Your task to perform on an android device: Turn on the flashlight Image 0: 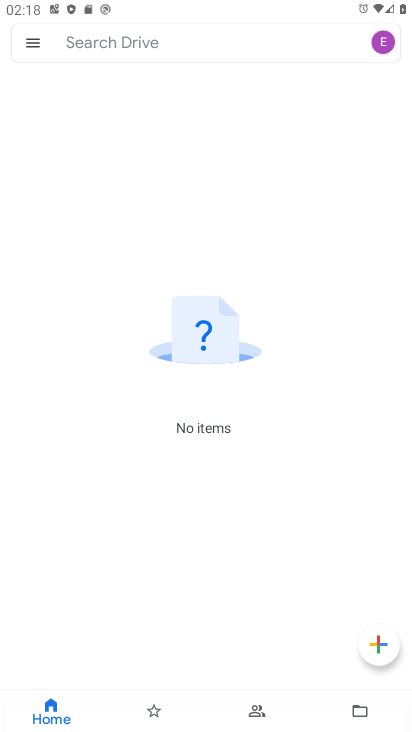
Step 0: press home button
Your task to perform on an android device: Turn on the flashlight Image 1: 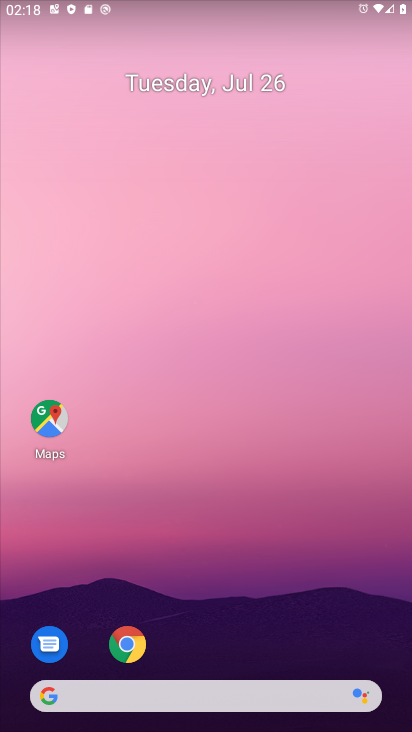
Step 1: drag from (215, 628) to (227, 70)
Your task to perform on an android device: Turn on the flashlight Image 2: 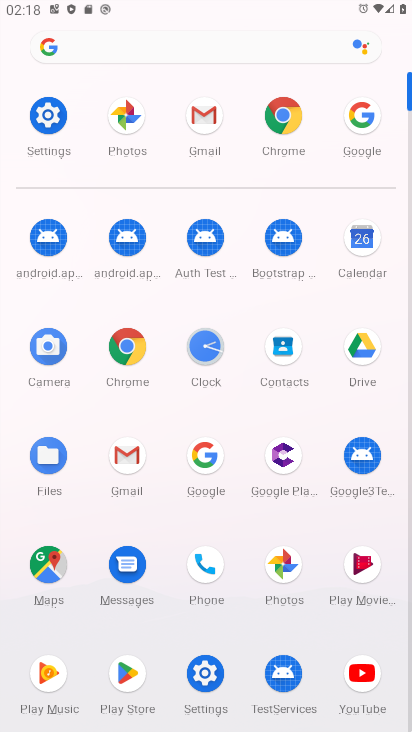
Step 2: click (33, 116)
Your task to perform on an android device: Turn on the flashlight Image 3: 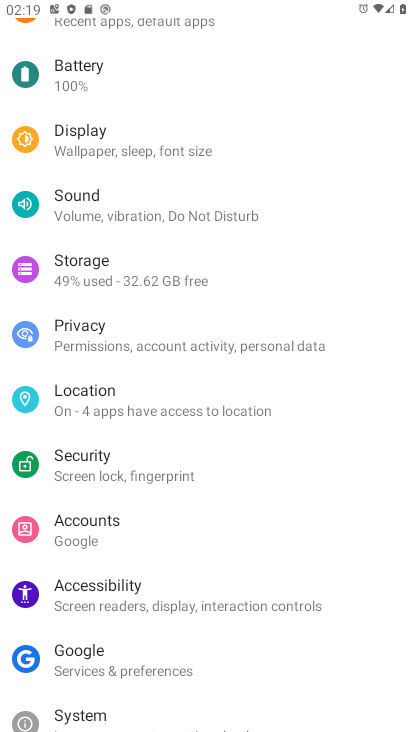
Step 3: task complete